Your task to perform on an android device: Check the news Image 0: 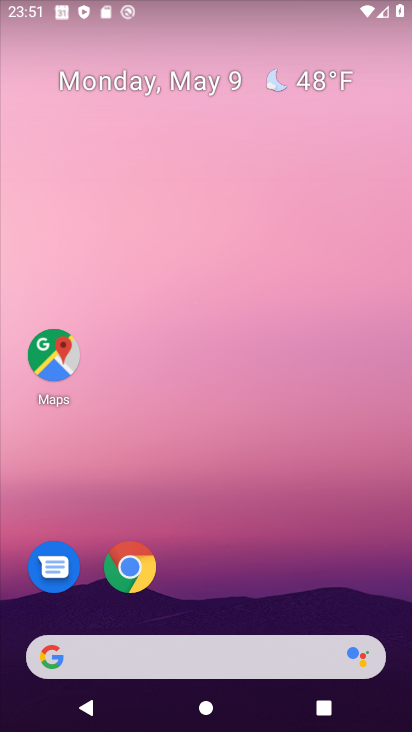
Step 0: drag from (213, 567) to (172, 98)
Your task to perform on an android device: Check the news Image 1: 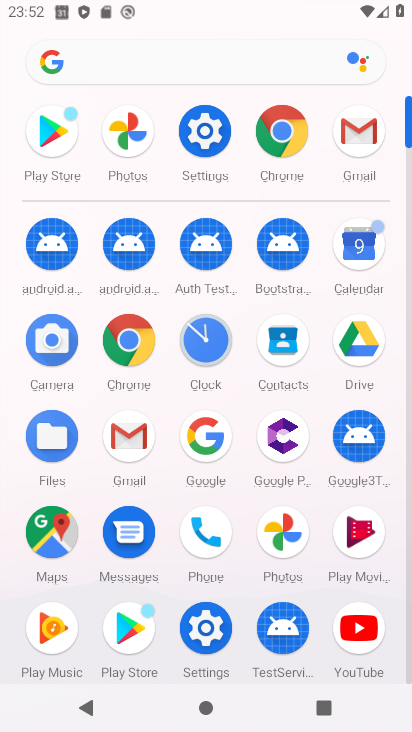
Step 1: click (201, 434)
Your task to perform on an android device: Check the news Image 2: 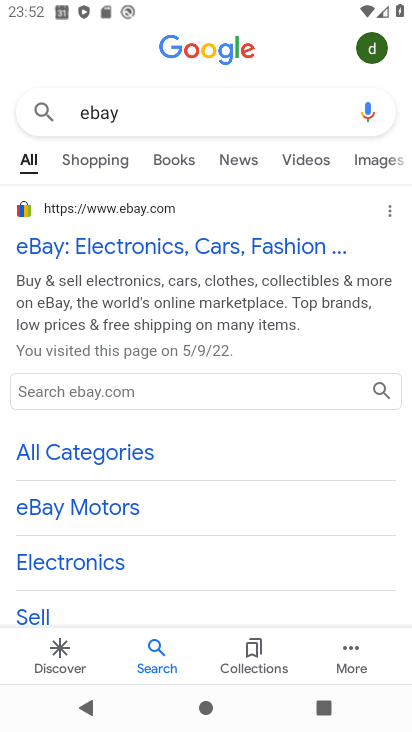
Step 2: click (171, 121)
Your task to perform on an android device: Check the news Image 3: 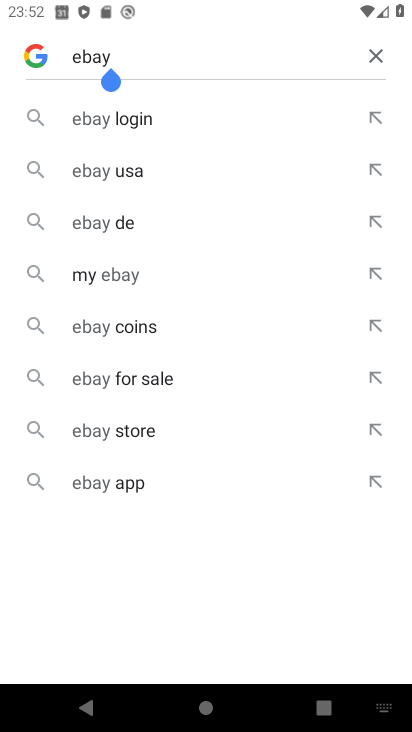
Step 3: click (379, 59)
Your task to perform on an android device: Check the news Image 4: 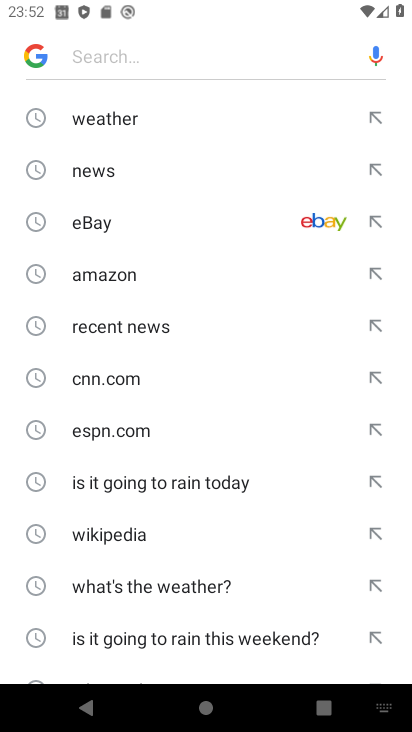
Step 4: click (110, 172)
Your task to perform on an android device: Check the news Image 5: 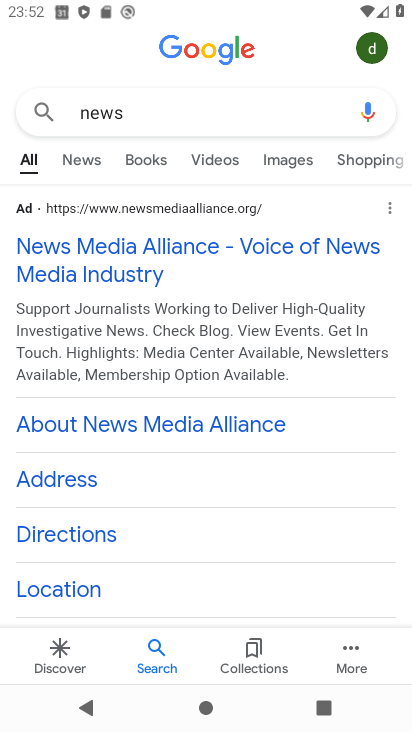
Step 5: task complete